Your task to perform on an android device: choose inbox layout in the gmail app Image 0: 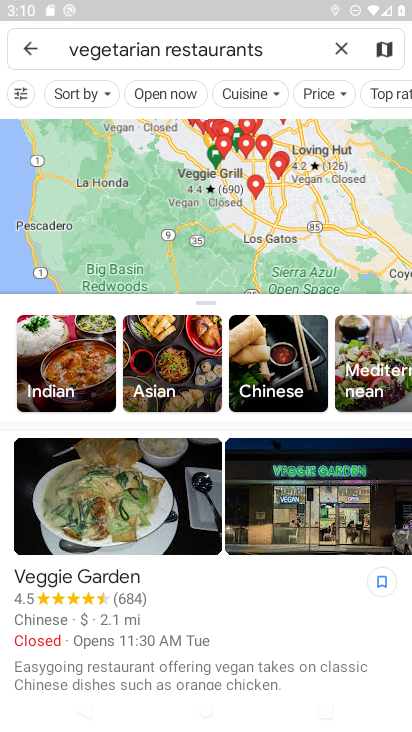
Step 0: press home button
Your task to perform on an android device: choose inbox layout in the gmail app Image 1: 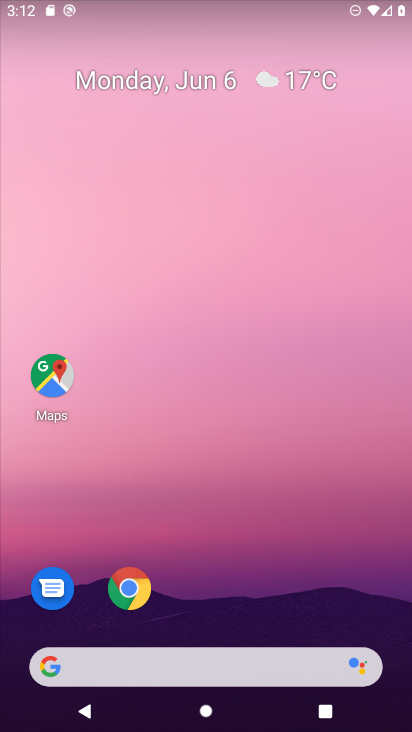
Step 1: drag from (230, 705) to (287, 36)
Your task to perform on an android device: choose inbox layout in the gmail app Image 2: 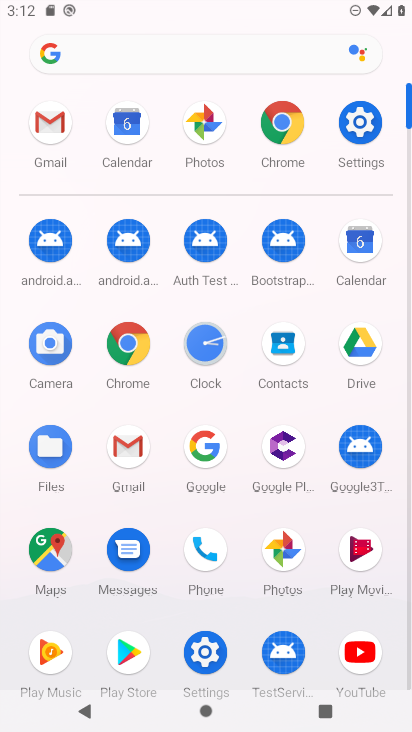
Step 2: click (130, 452)
Your task to perform on an android device: choose inbox layout in the gmail app Image 3: 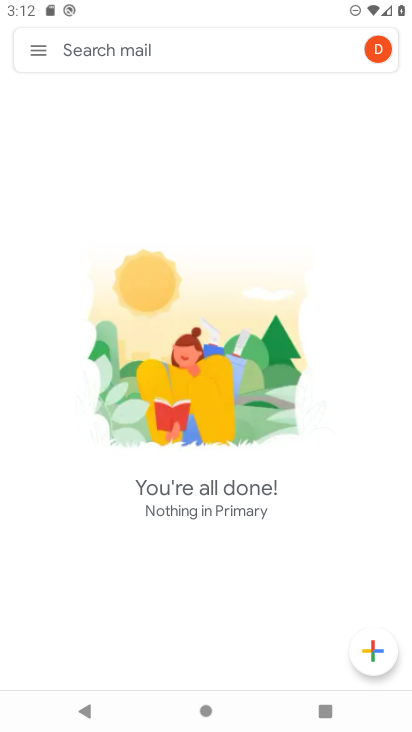
Step 3: click (35, 54)
Your task to perform on an android device: choose inbox layout in the gmail app Image 4: 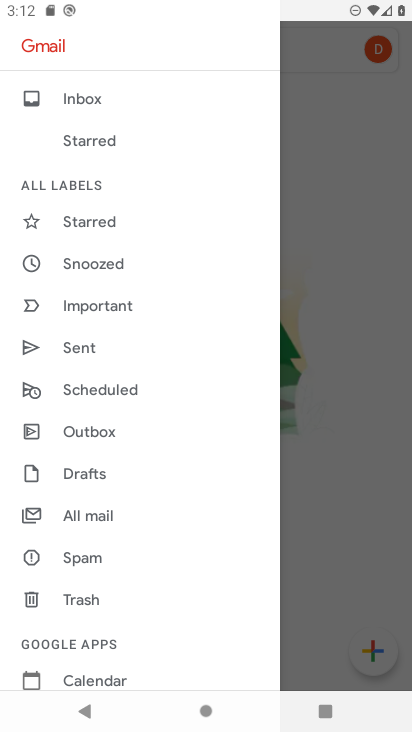
Step 4: drag from (177, 682) to (252, 9)
Your task to perform on an android device: choose inbox layout in the gmail app Image 5: 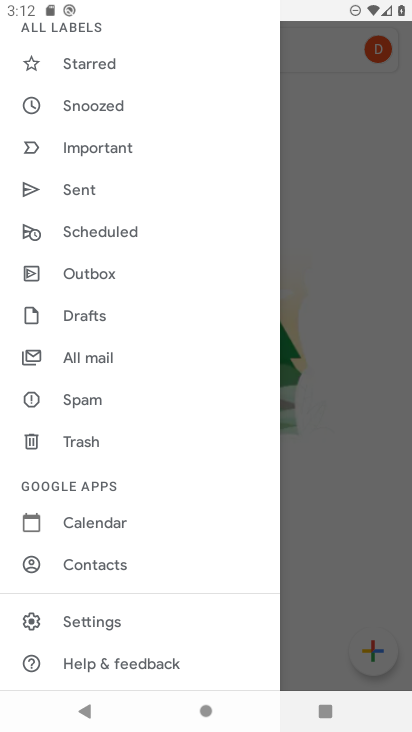
Step 5: click (124, 626)
Your task to perform on an android device: choose inbox layout in the gmail app Image 6: 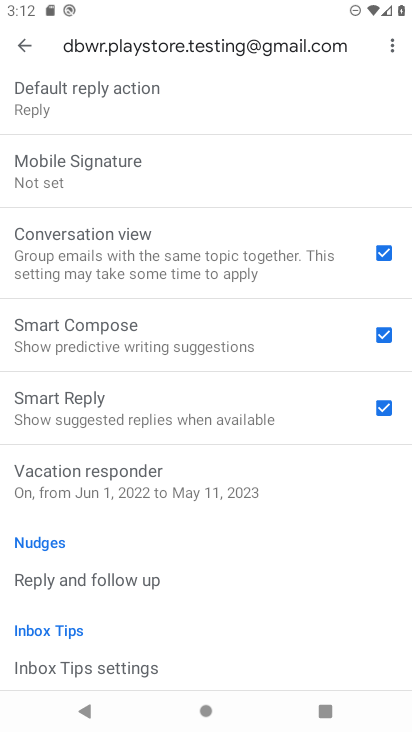
Step 6: drag from (137, 441) to (43, 725)
Your task to perform on an android device: choose inbox layout in the gmail app Image 7: 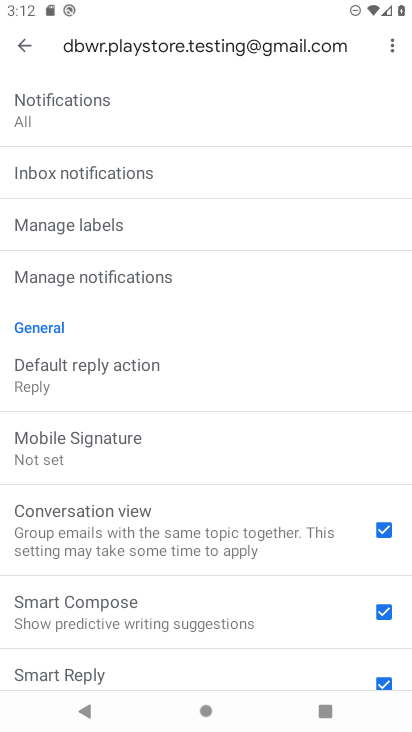
Step 7: drag from (110, 151) to (17, 673)
Your task to perform on an android device: choose inbox layout in the gmail app Image 8: 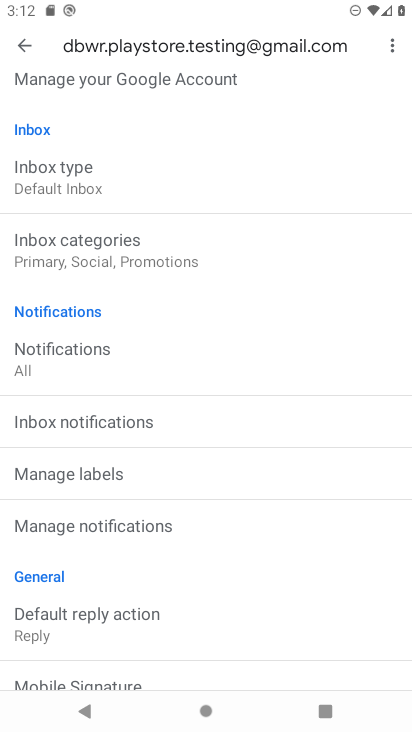
Step 8: click (85, 181)
Your task to perform on an android device: choose inbox layout in the gmail app Image 9: 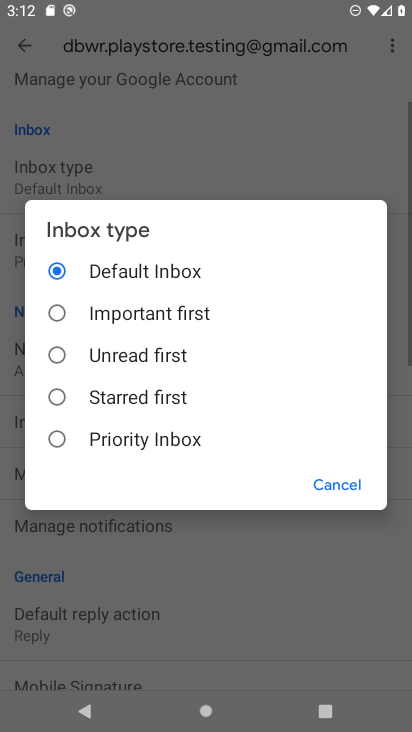
Step 9: click (106, 353)
Your task to perform on an android device: choose inbox layout in the gmail app Image 10: 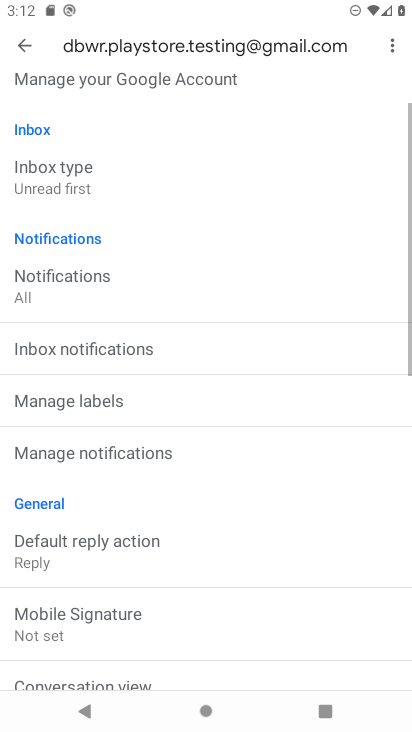
Step 10: task complete